Your task to perform on an android device: Open Amazon Image 0: 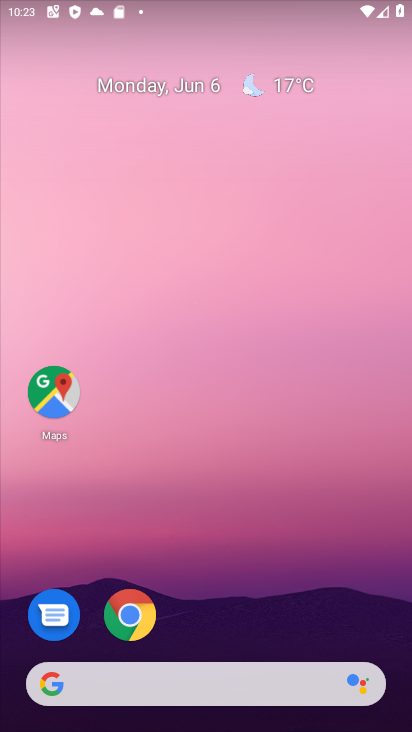
Step 0: click (137, 602)
Your task to perform on an android device: Open Amazon Image 1: 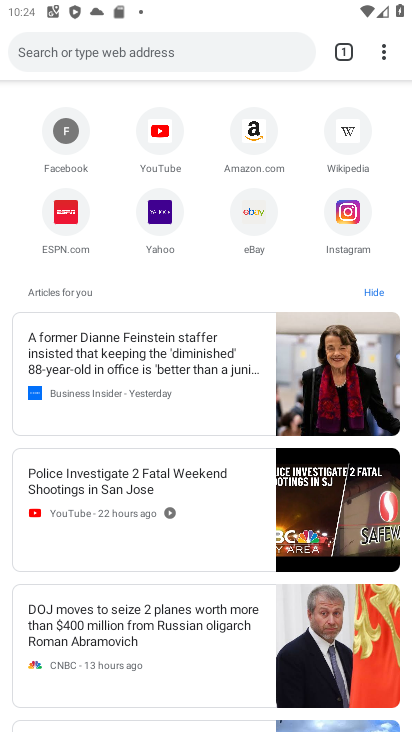
Step 1: click (247, 126)
Your task to perform on an android device: Open Amazon Image 2: 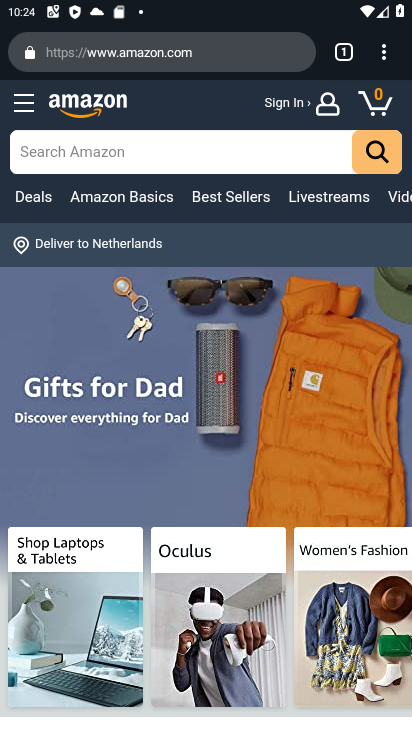
Step 2: task complete